Your task to perform on an android device: Open Android settings Image 0: 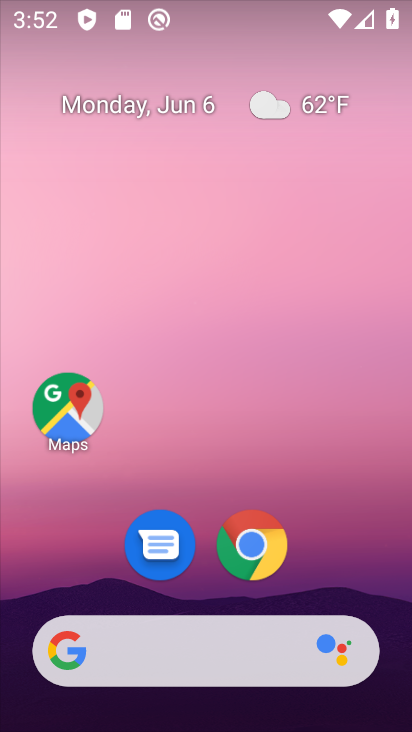
Step 0: click (240, 102)
Your task to perform on an android device: Open Android settings Image 1: 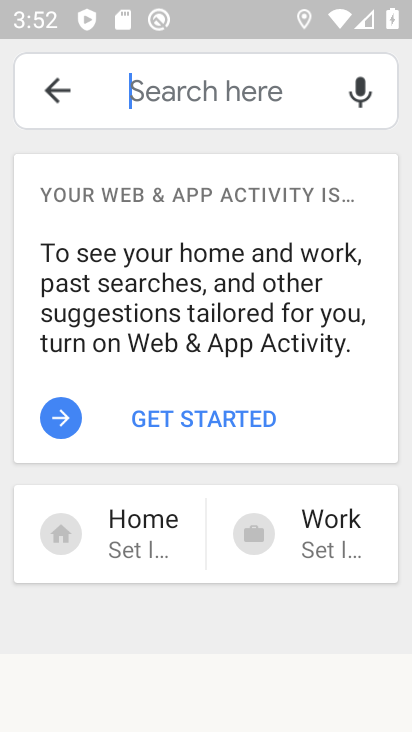
Step 1: press home button
Your task to perform on an android device: Open Android settings Image 2: 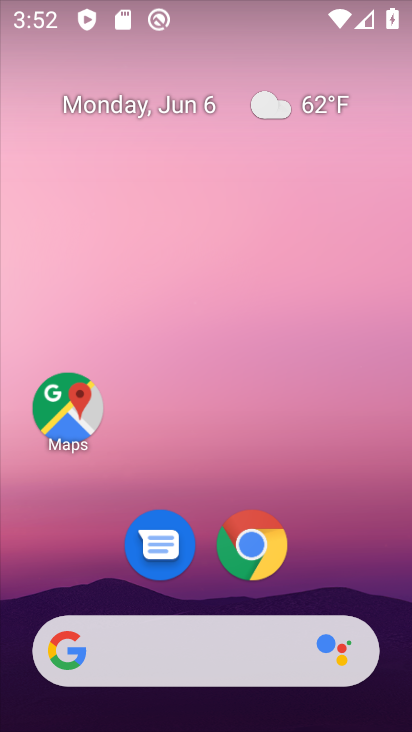
Step 2: drag from (186, 725) to (168, 56)
Your task to perform on an android device: Open Android settings Image 3: 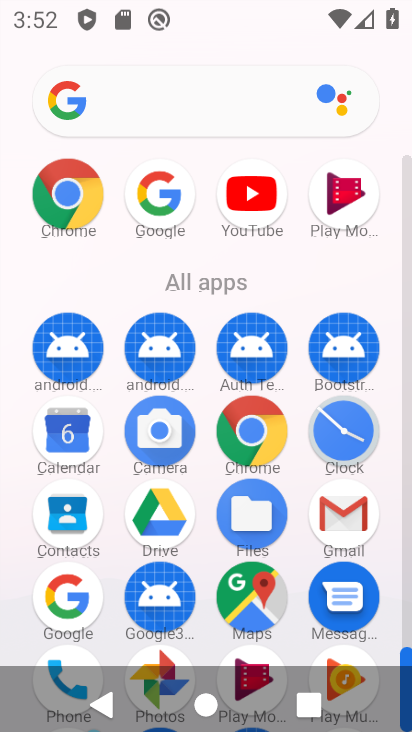
Step 3: drag from (204, 605) to (198, 135)
Your task to perform on an android device: Open Android settings Image 4: 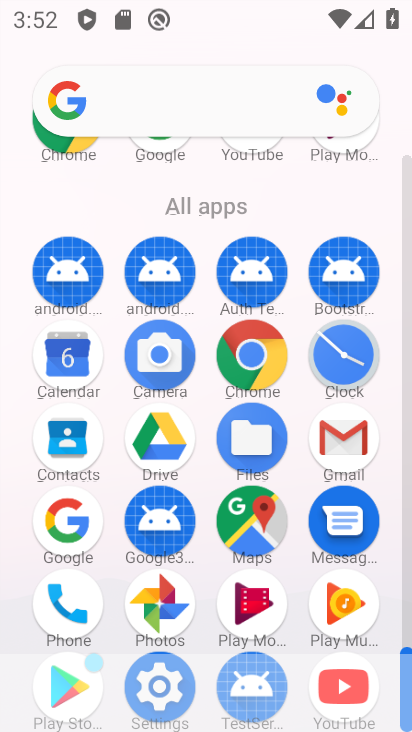
Step 4: click (166, 676)
Your task to perform on an android device: Open Android settings Image 5: 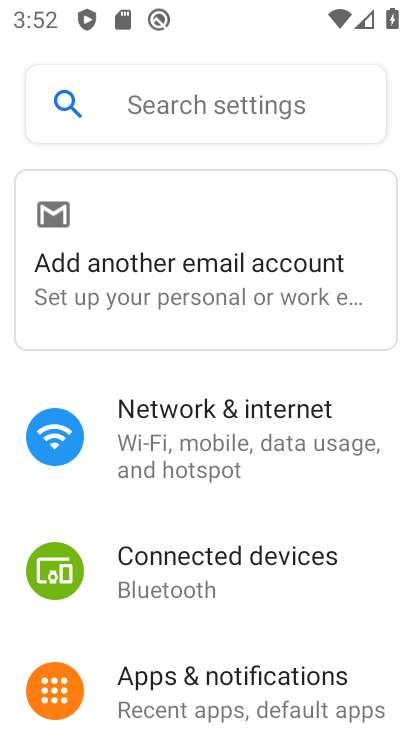
Step 5: task complete